Your task to perform on an android device: Clear all items from cart on target.com. Image 0: 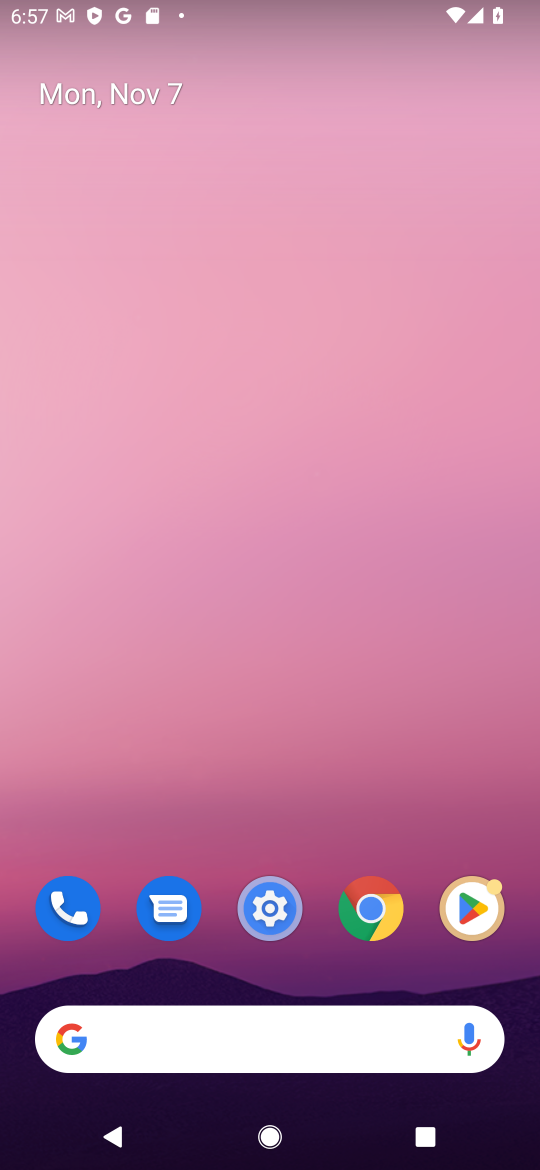
Step 0: task complete